Your task to perform on an android device: Open ESPN.com Image 0: 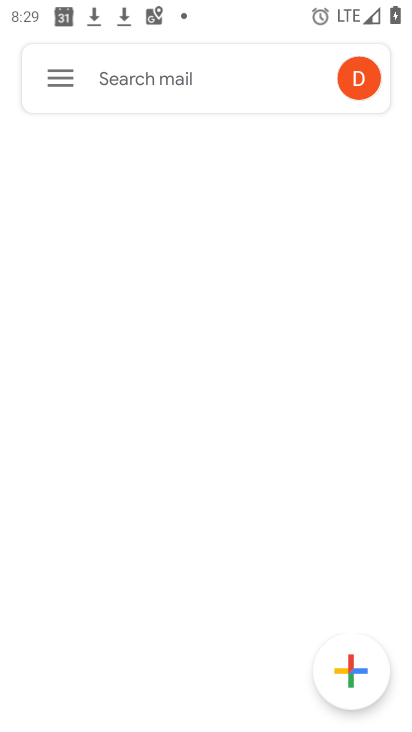
Step 0: press home button
Your task to perform on an android device: Open ESPN.com Image 1: 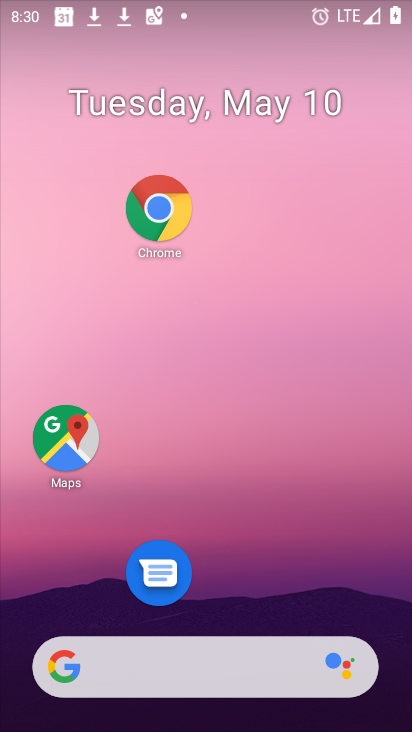
Step 1: drag from (283, 695) to (343, 310)
Your task to perform on an android device: Open ESPN.com Image 2: 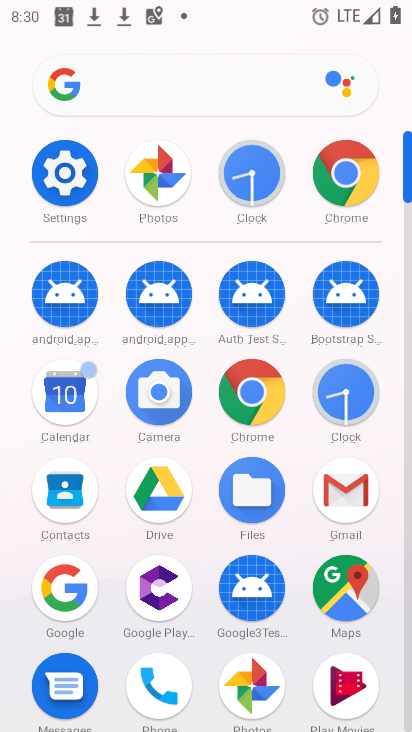
Step 2: click (340, 154)
Your task to perform on an android device: Open ESPN.com Image 3: 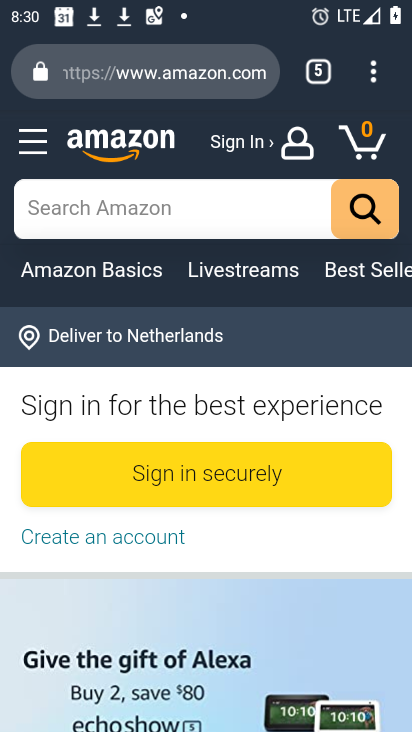
Step 3: click (308, 64)
Your task to perform on an android device: Open ESPN.com Image 4: 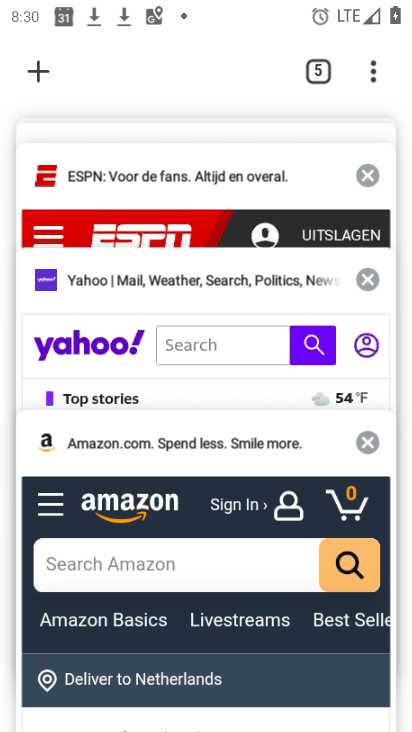
Step 4: click (42, 80)
Your task to perform on an android device: Open ESPN.com Image 5: 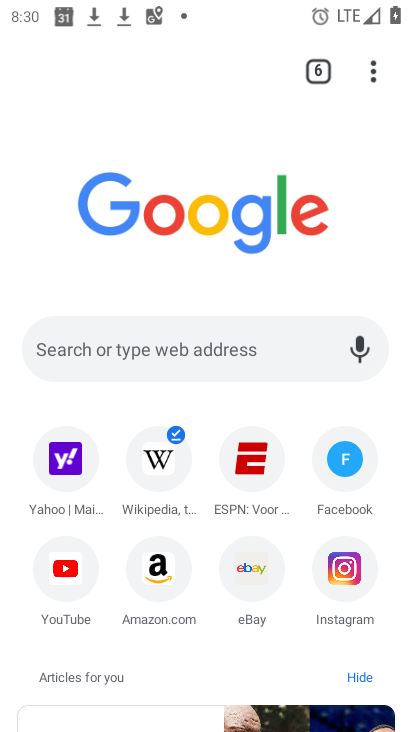
Step 5: click (236, 477)
Your task to perform on an android device: Open ESPN.com Image 6: 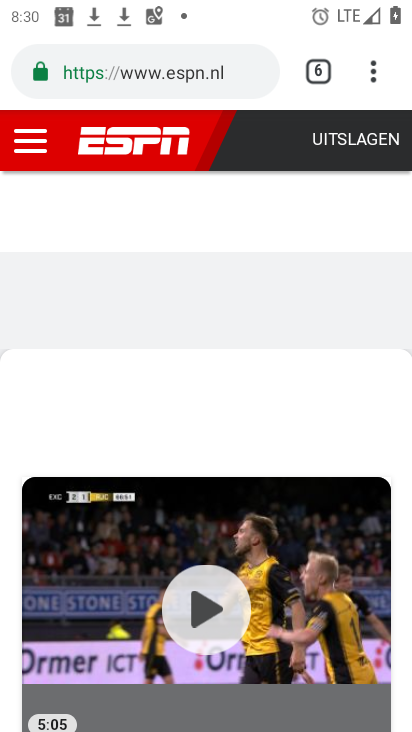
Step 6: task complete